Your task to perform on an android device: Go to notification settings Image 0: 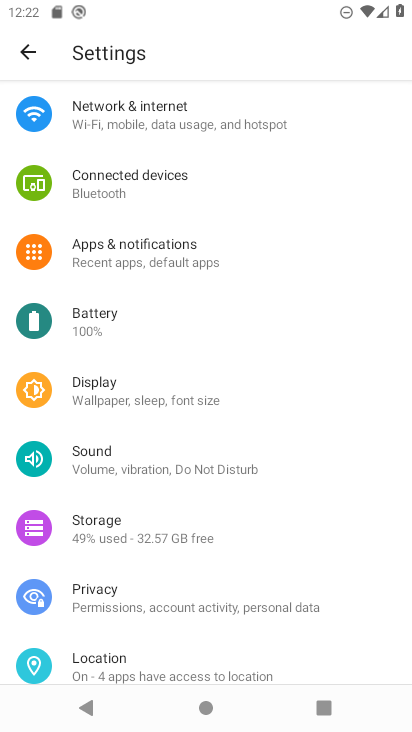
Step 0: click (245, 237)
Your task to perform on an android device: Go to notification settings Image 1: 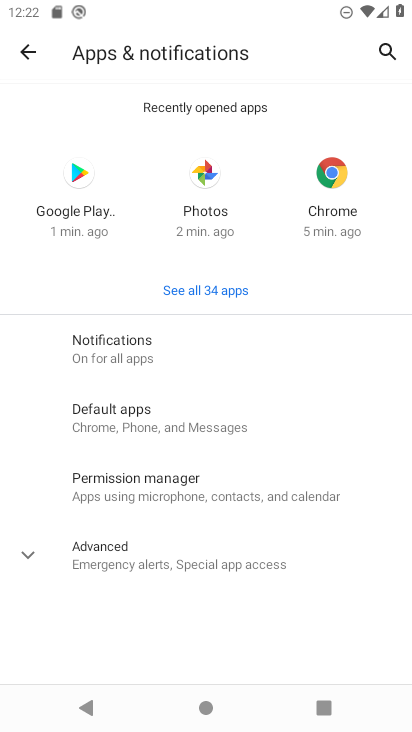
Step 1: task complete